Your task to perform on an android device: Open Maps and search for coffee Image 0: 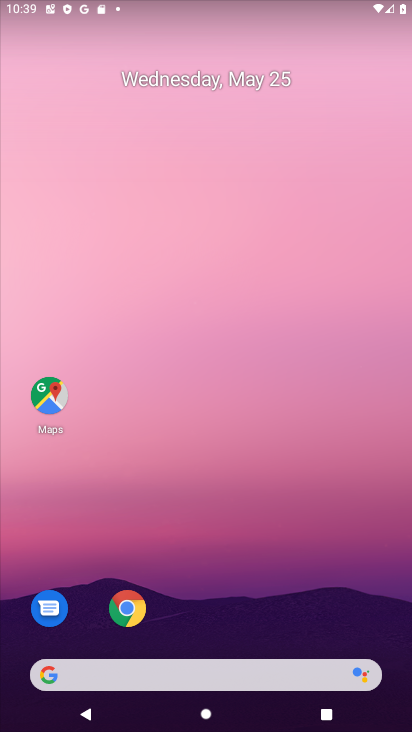
Step 0: click (49, 402)
Your task to perform on an android device: Open Maps and search for coffee Image 1: 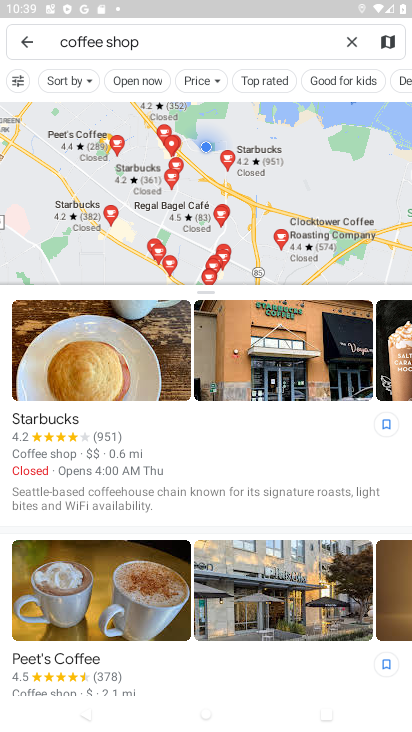
Step 1: task complete